Your task to perform on an android device: Go to privacy settings Image 0: 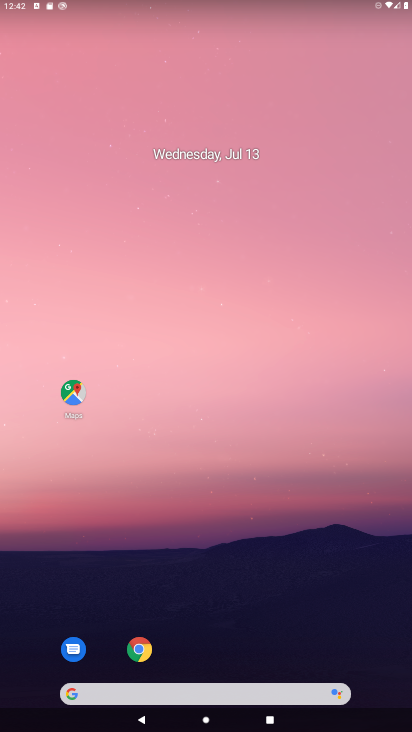
Step 0: drag from (377, 668) to (326, 67)
Your task to perform on an android device: Go to privacy settings Image 1: 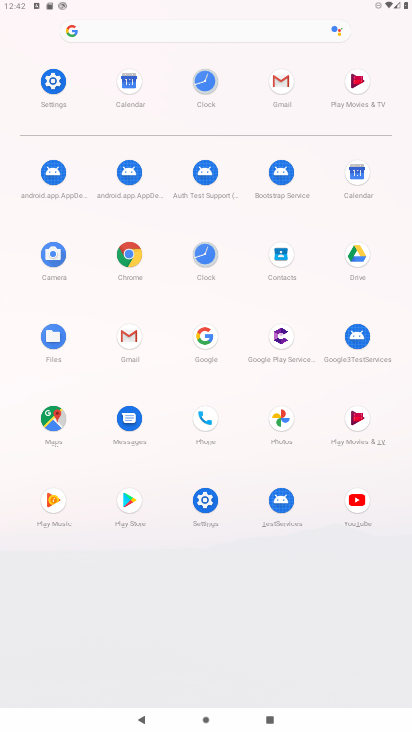
Step 1: click (206, 499)
Your task to perform on an android device: Go to privacy settings Image 2: 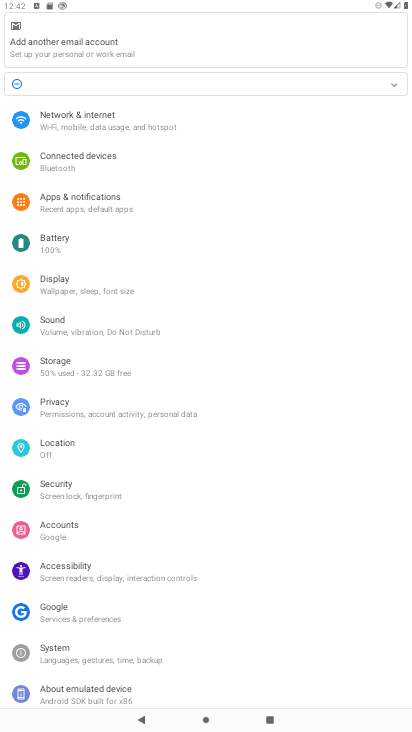
Step 2: click (42, 407)
Your task to perform on an android device: Go to privacy settings Image 3: 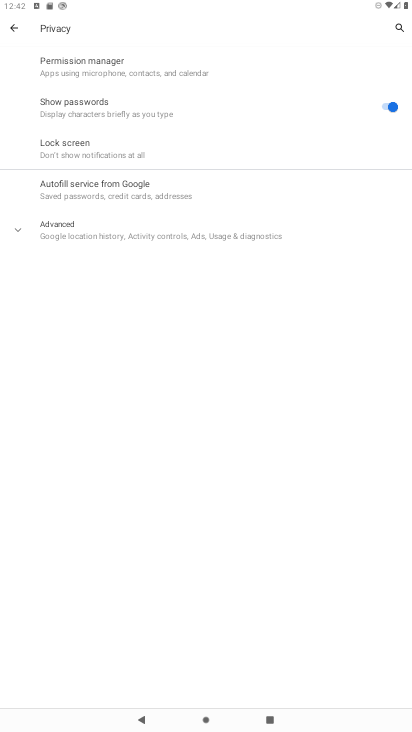
Step 3: click (19, 226)
Your task to perform on an android device: Go to privacy settings Image 4: 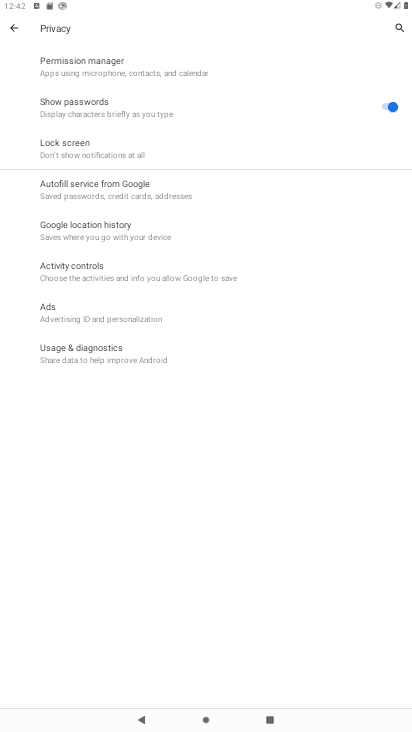
Step 4: task complete